Your task to perform on an android device: clear all cookies in the chrome app Image 0: 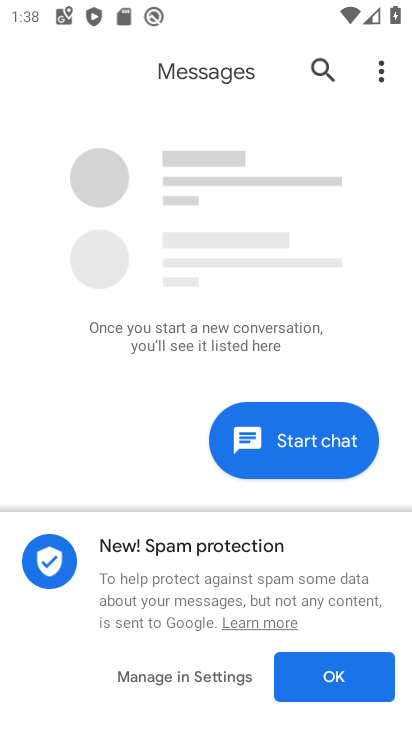
Step 0: press back button
Your task to perform on an android device: clear all cookies in the chrome app Image 1: 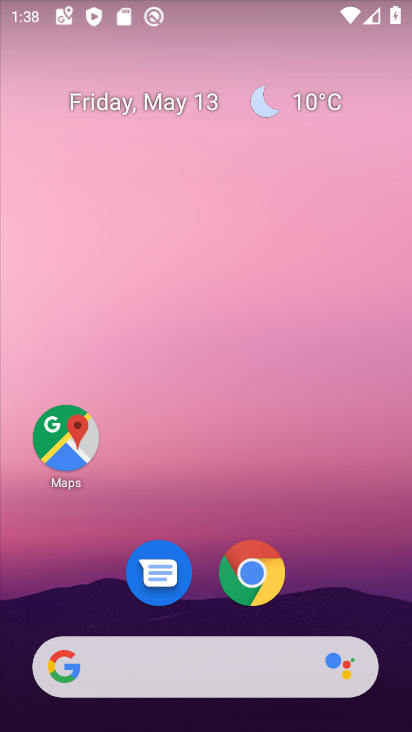
Step 1: drag from (334, 584) to (271, 4)
Your task to perform on an android device: clear all cookies in the chrome app Image 2: 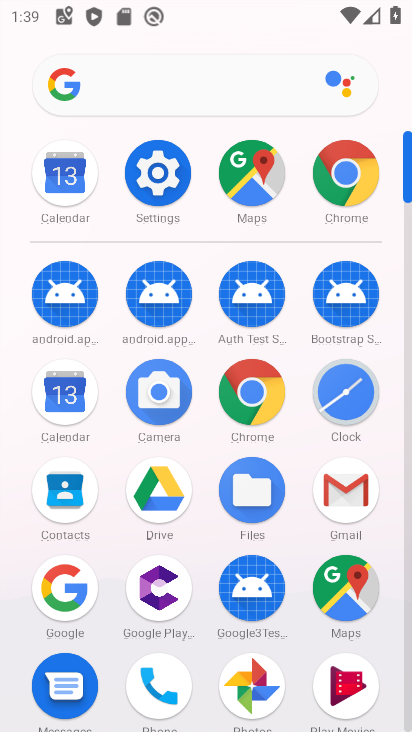
Step 2: click (249, 389)
Your task to perform on an android device: clear all cookies in the chrome app Image 3: 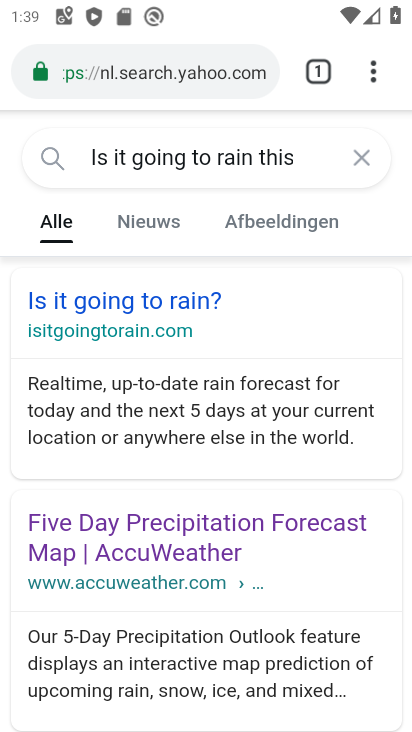
Step 3: drag from (375, 71) to (123, 566)
Your task to perform on an android device: clear all cookies in the chrome app Image 4: 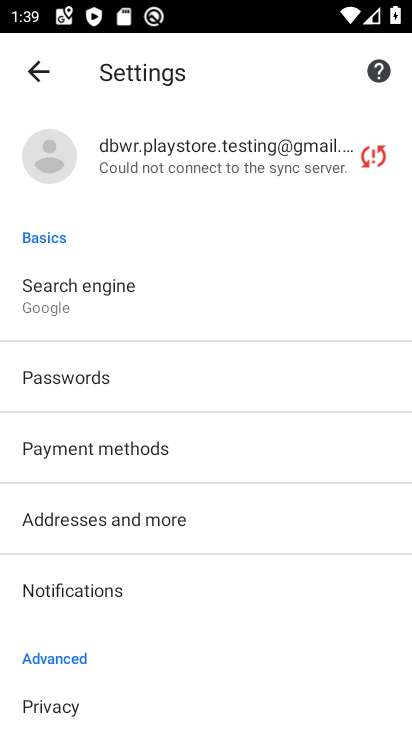
Step 4: drag from (249, 570) to (265, 156)
Your task to perform on an android device: clear all cookies in the chrome app Image 5: 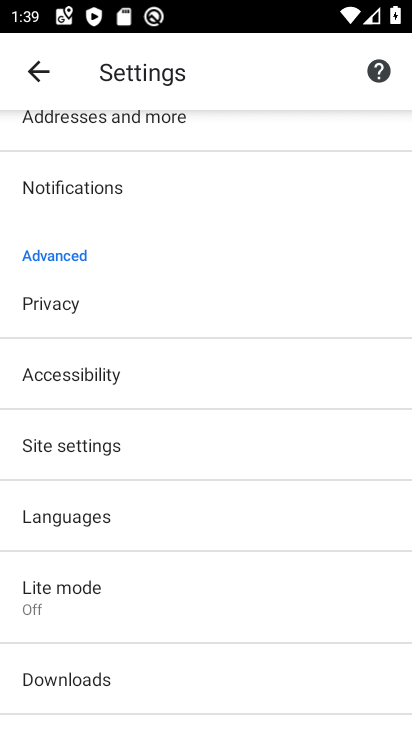
Step 5: click (133, 437)
Your task to perform on an android device: clear all cookies in the chrome app Image 6: 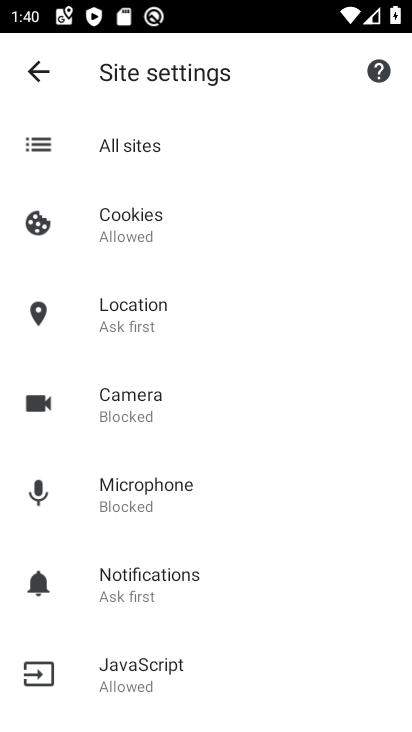
Step 6: click (37, 60)
Your task to perform on an android device: clear all cookies in the chrome app Image 7: 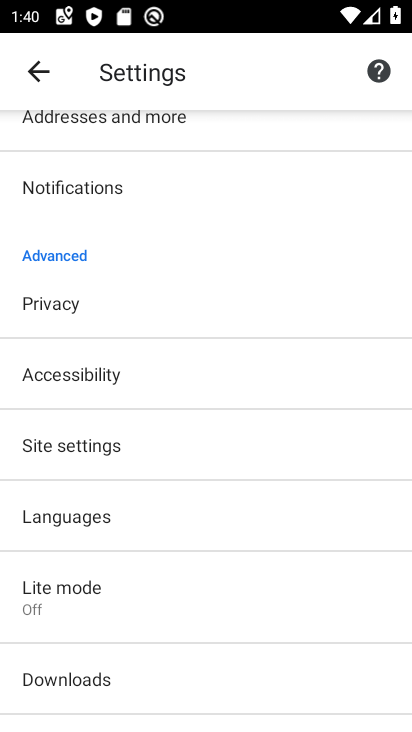
Step 7: click (83, 298)
Your task to perform on an android device: clear all cookies in the chrome app Image 8: 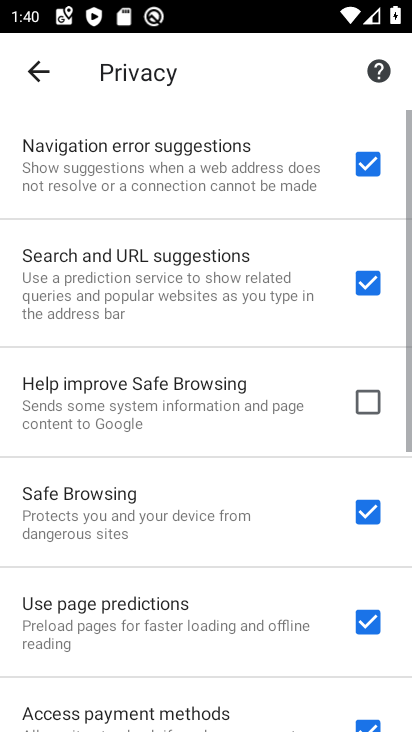
Step 8: drag from (209, 598) to (214, 166)
Your task to perform on an android device: clear all cookies in the chrome app Image 9: 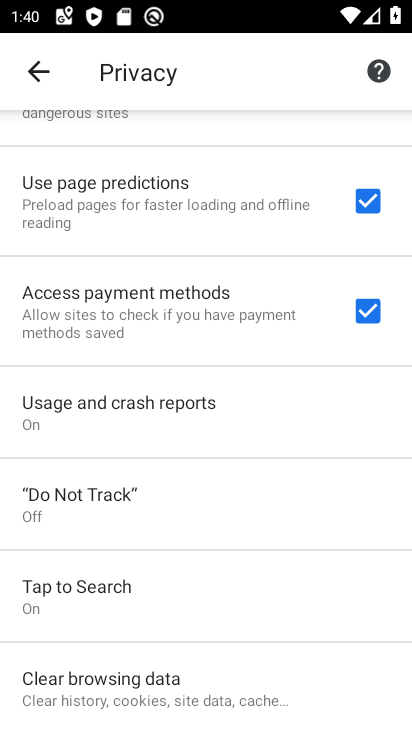
Step 9: click (124, 697)
Your task to perform on an android device: clear all cookies in the chrome app Image 10: 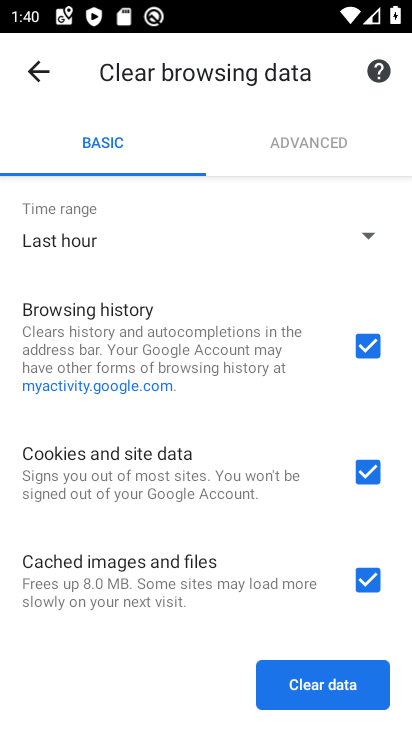
Step 10: click (359, 332)
Your task to perform on an android device: clear all cookies in the chrome app Image 11: 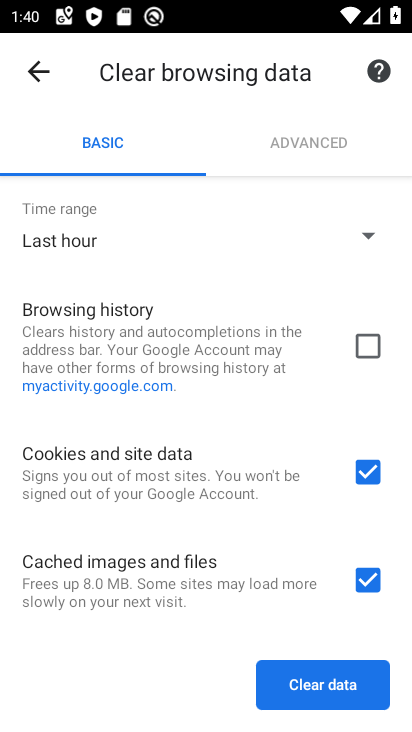
Step 11: click (343, 695)
Your task to perform on an android device: clear all cookies in the chrome app Image 12: 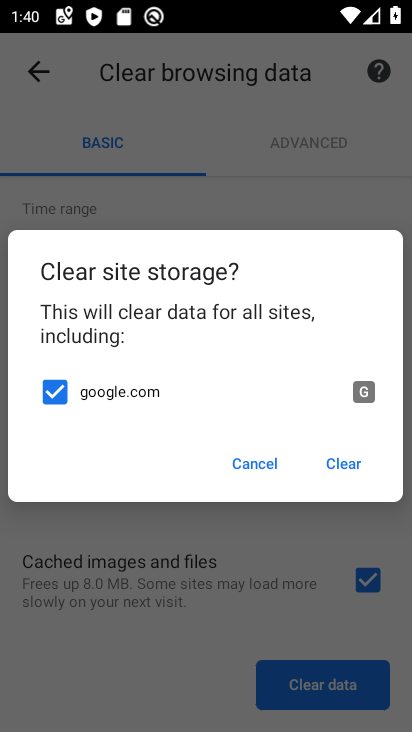
Step 12: click (336, 457)
Your task to perform on an android device: clear all cookies in the chrome app Image 13: 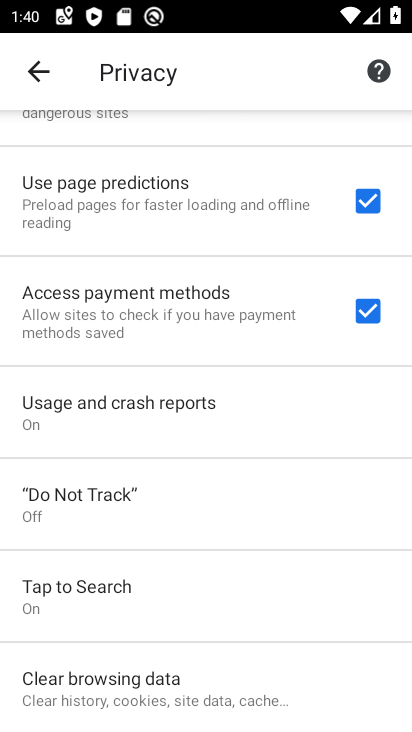
Step 13: task complete